Your task to perform on an android device: toggle airplane mode Image 0: 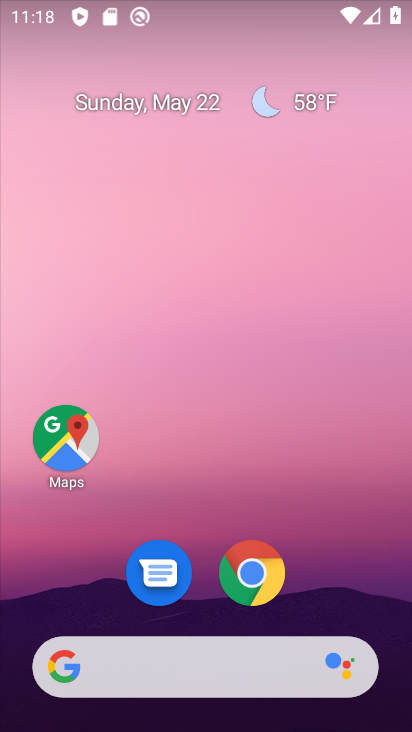
Step 0: drag from (351, 600) to (360, 244)
Your task to perform on an android device: toggle airplane mode Image 1: 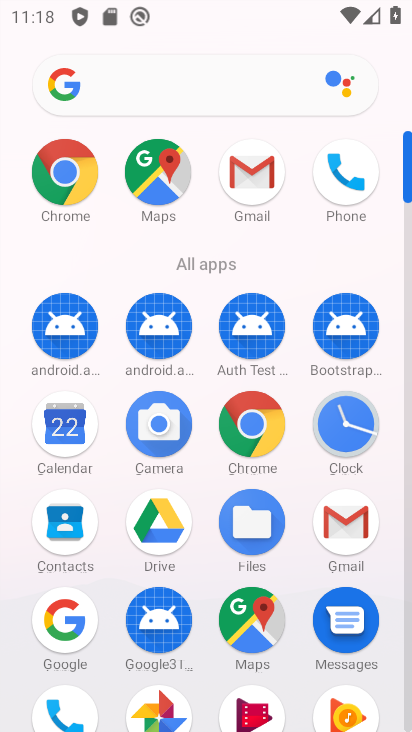
Step 1: drag from (387, 675) to (388, 457)
Your task to perform on an android device: toggle airplane mode Image 2: 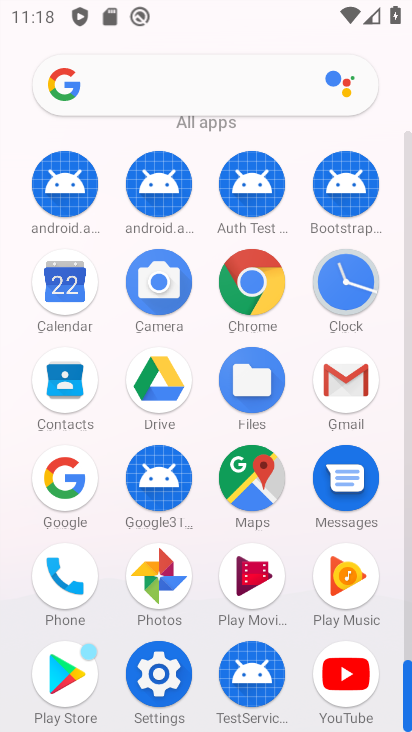
Step 2: click (166, 688)
Your task to perform on an android device: toggle airplane mode Image 3: 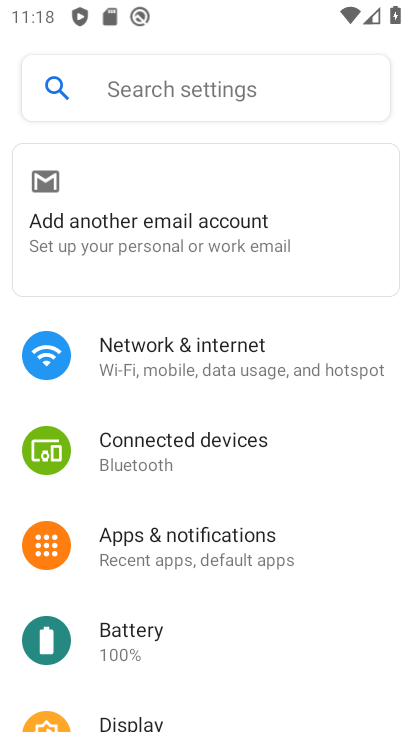
Step 3: click (312, 347)
Your task to perform on an android device: toggle airplane mode Image 4: 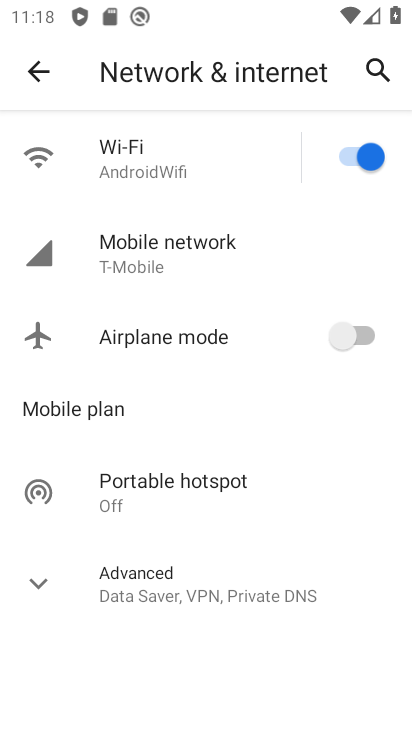
Step 4: click (338, 336)
Your task to perform on an android device: toggle airplane mode Image 5: 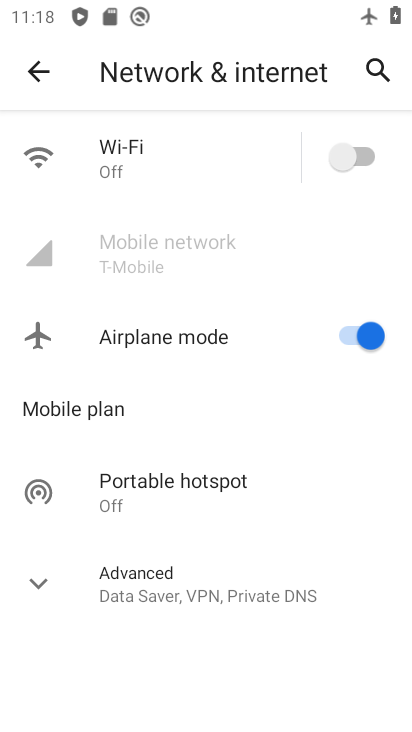
Step 5: task complete